Your task to perform on an android device: turn off location history Image 0: 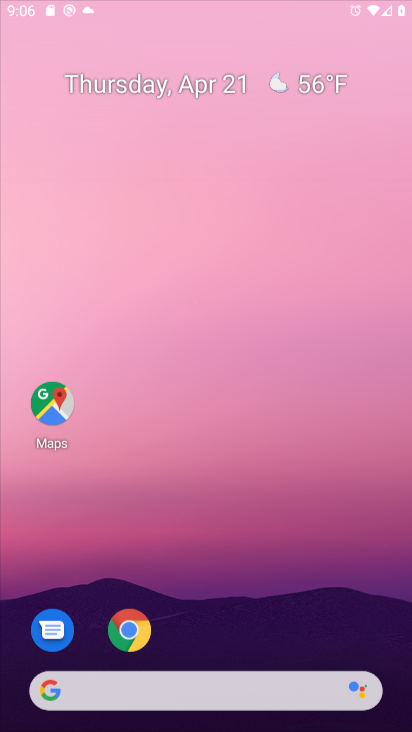
Step 0: click (305, 293)
Your task to perform on an android device: turn off location history Image 1: 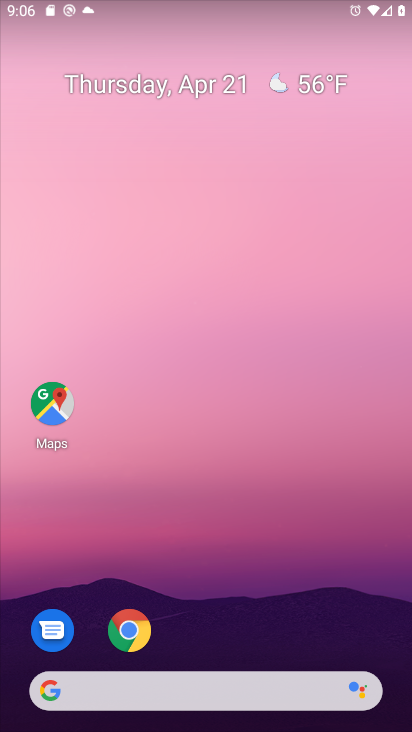
Step 1: drag from (223, 574) to (275, 53)
Your task to perform on an android device: turn off location history Image 2: 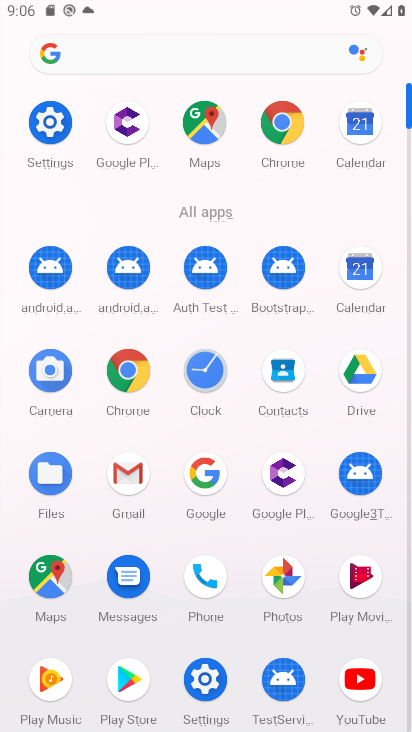
Step 2: click (53, 135)
Your task to perform on an android device: turn off location history Image 3: 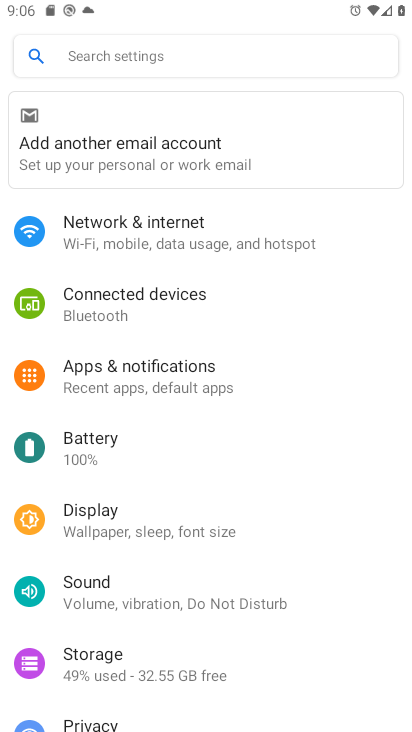
Step 3: drag from (112, 537) to (139, 255)
Your task to perform on an android device: turn off location history Image 4: 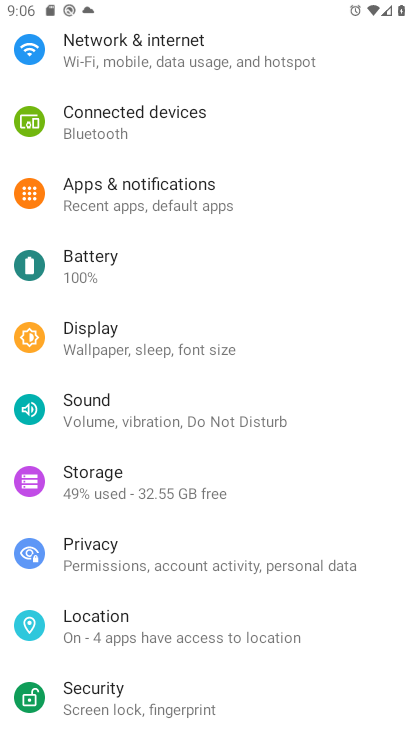
Step 4: click (141, 624)
Your task to perform on an android device: turn off location history Image 5: 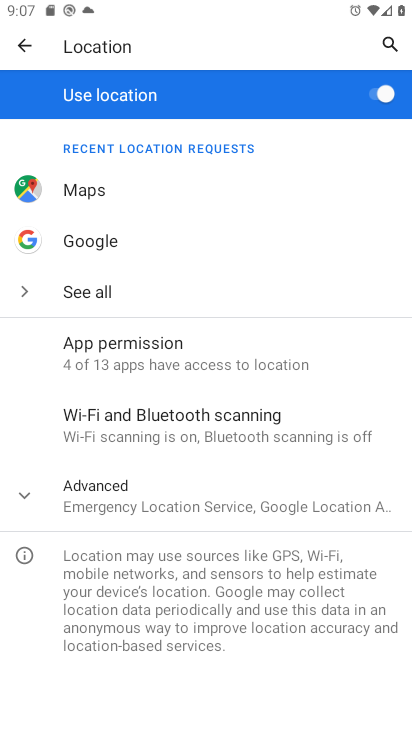
Step 5: click (32, 501)
Your task to perform on an android device: turn off location history Image 6: 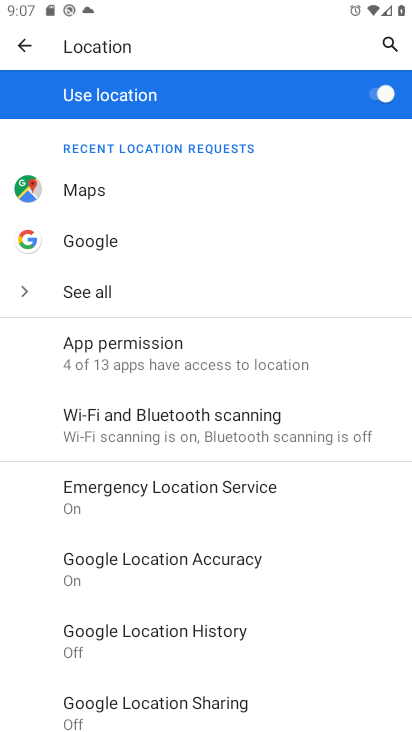
Step 6: click (223, 632)
Your task to perform on an android device: turn off location history Image 7: 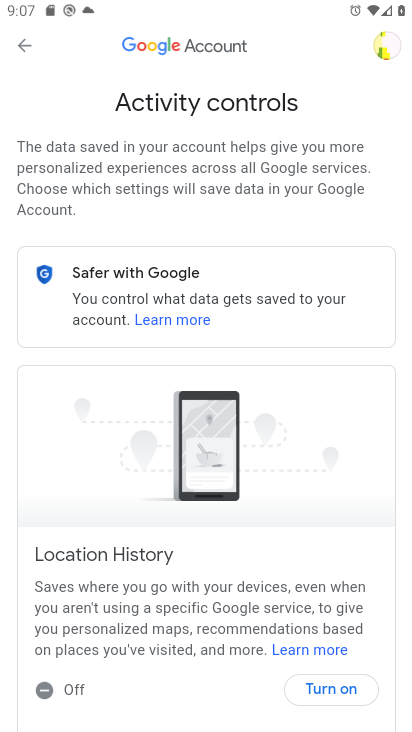
Step 7: task complete